Your task to perform on an android device: Check the weather Image 0: 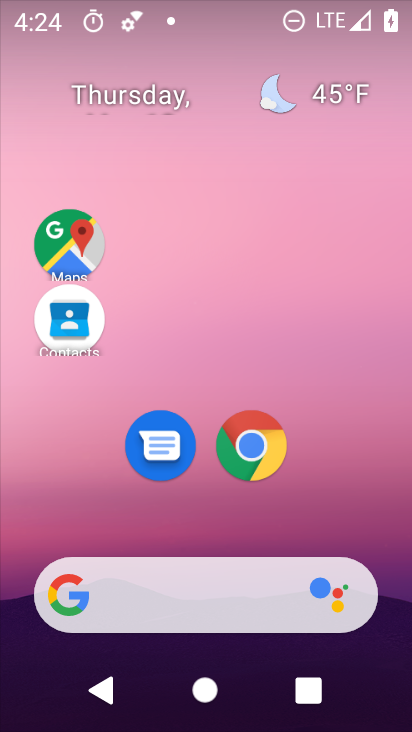
Step 0: drag from (305, 507) to (221, 24)
Your task to perform on an android device: Check the weather Image 1: 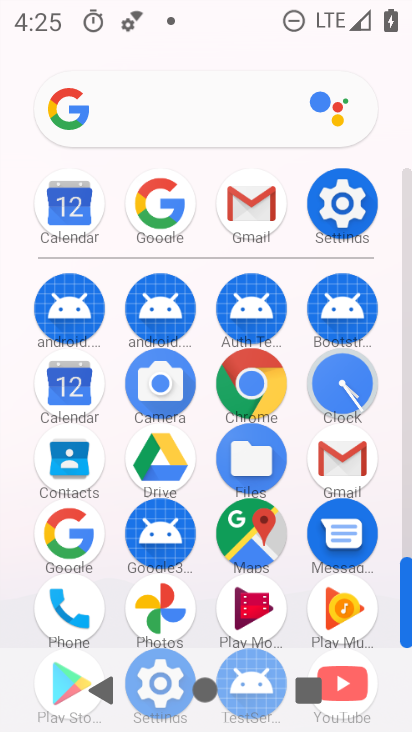
Step 1: click (63, 530)
Your task to perform on an android device: Check the weather Image 2: 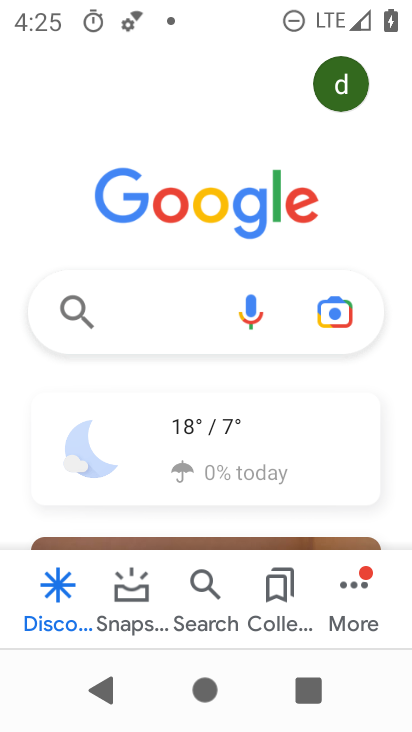
Step 2: click (213, 431)
Your task to perform on an android device: Check the weather Image 3: 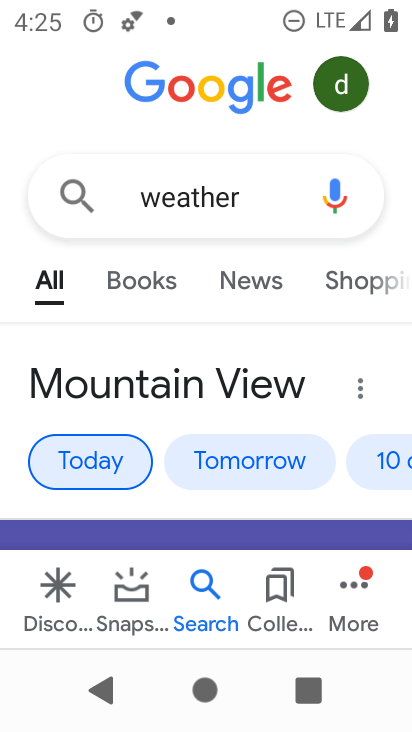
Step 3: task complete